Your task to perform on an android device: check data usage Image 0: 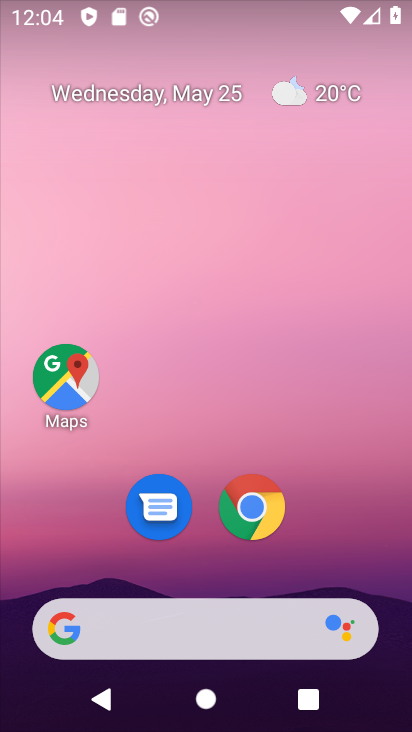
Step 0: drag from (378, 514) to (383, 64)
Your task to perform on an android device: check data usage Image 1: 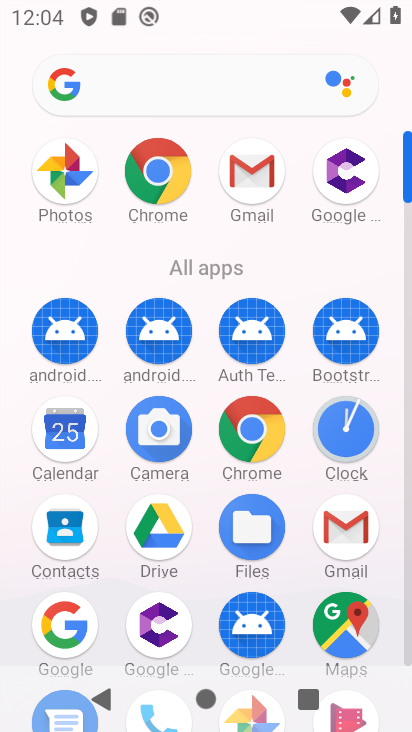
Step 1: drag from (170, 613) to (183, 288)
Your task to perform on an android device: check data usage Image 2: 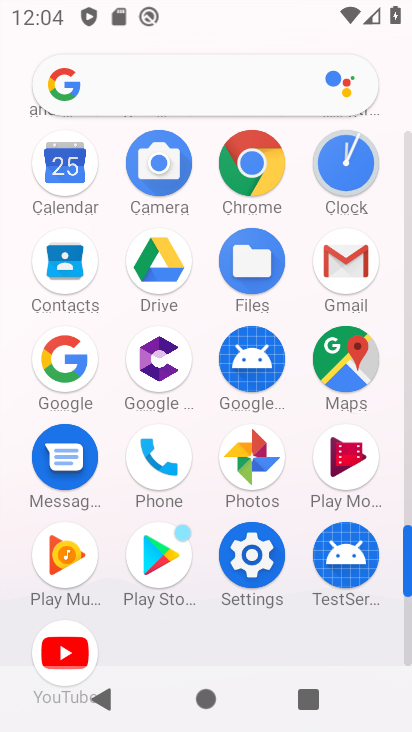
Step 2: click (264, 612)
Your task to perform on an android device: check data usage Image 3: 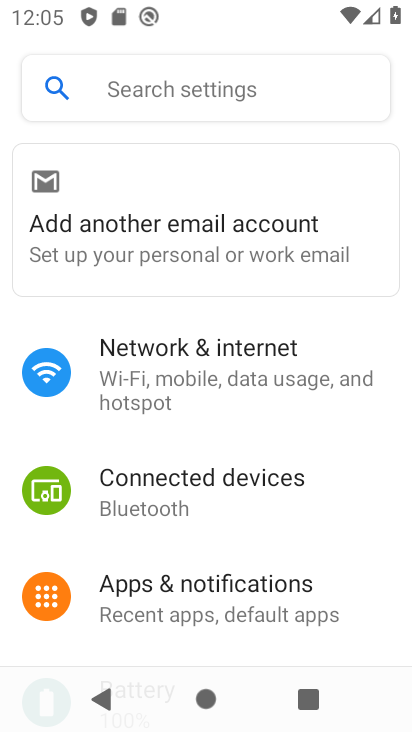
Step 3: click (197, 384)
Your task to perform on an android device: check data usage Image 4: 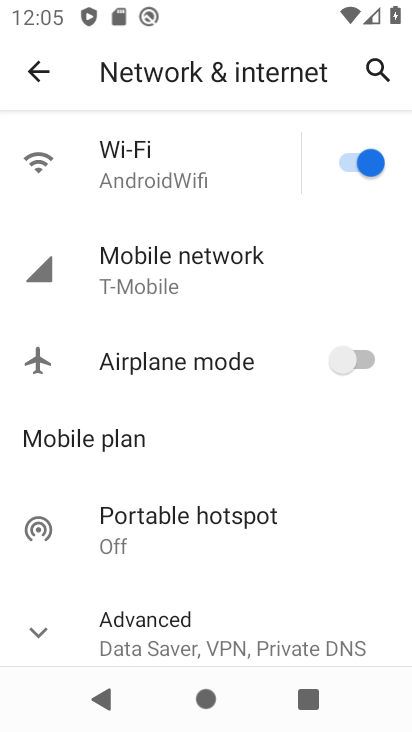
Step 4: click (194, 278)
Your task to perform on an android device: check data usage Image 5: 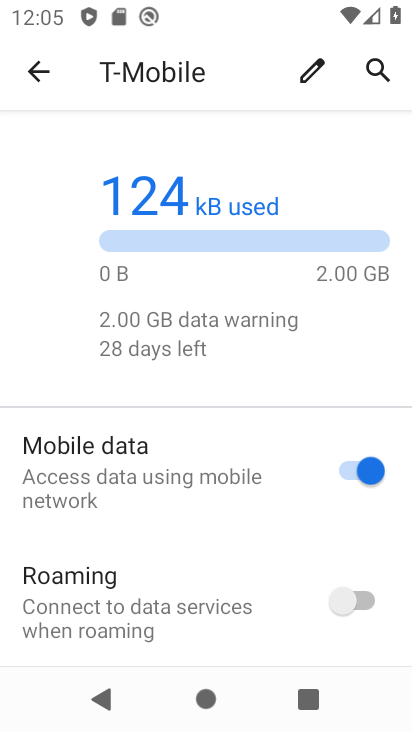
Step 5: task complete